Your task to perform on an android device: Go to Reddit.com Image 0: 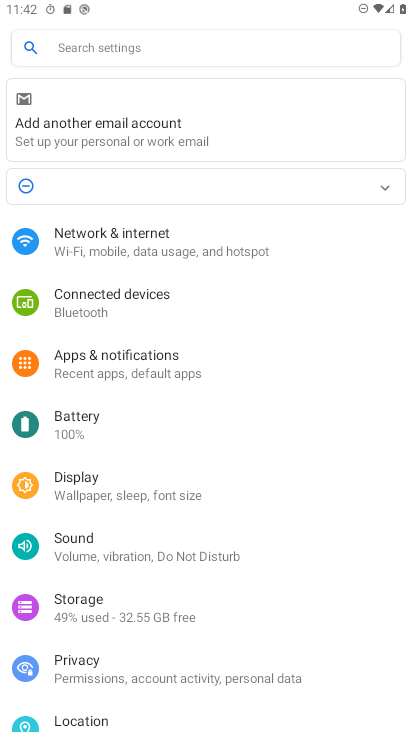
Step 0: press home button
Your task to perform on an android device: Go to Reddit.com Image 1: 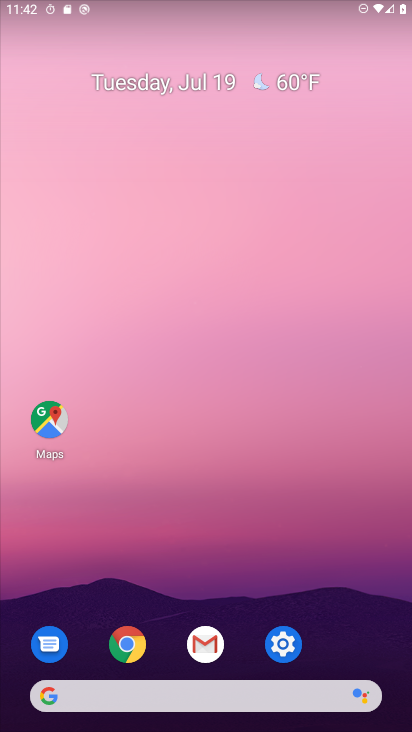
Step 1: click (128, 631)
Your task to perform on an android device: Go to Reddit.com Image 2: 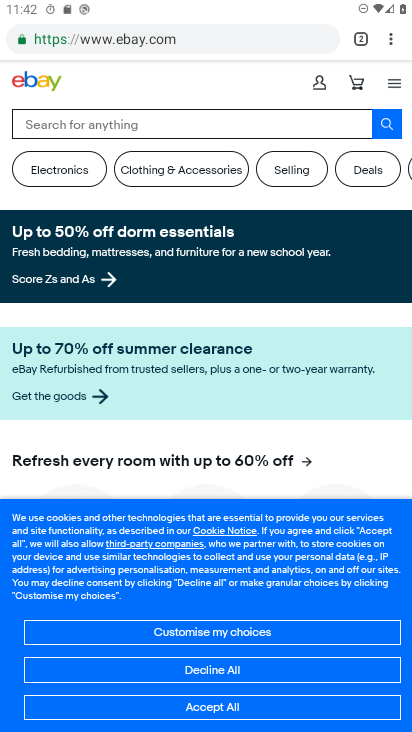
Step 2: click (191, 45)
Your task to perform on an android device: Go to Reddit.com Image 3: 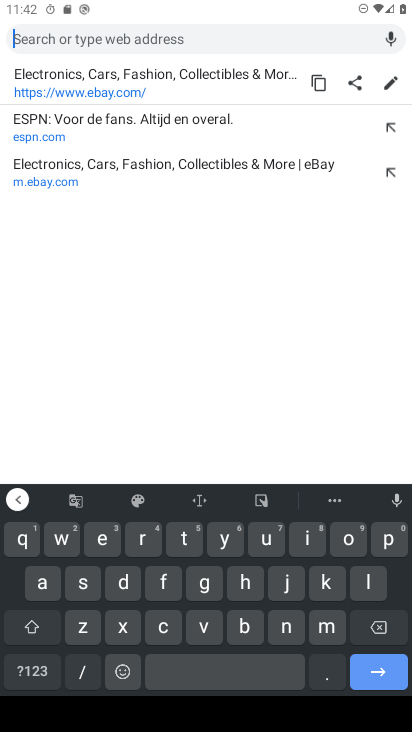
Step 3: click (136, 539)
Your task to perform on an android device: Go to Reddit.com Image 4: 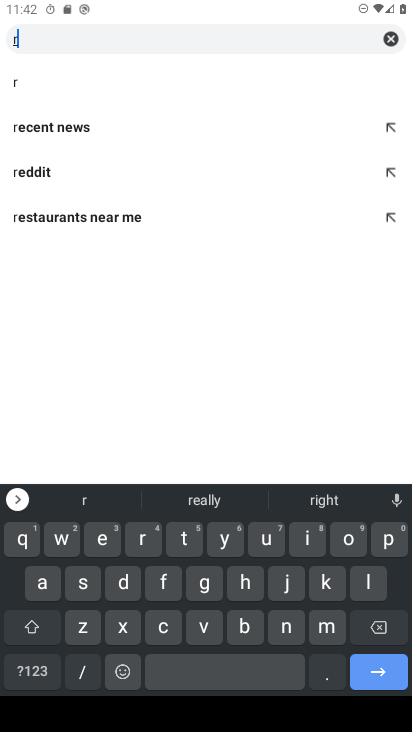
Step 4: click (100, 541)
Your task to perform on an android device: Go to Reddit.com Image 5: 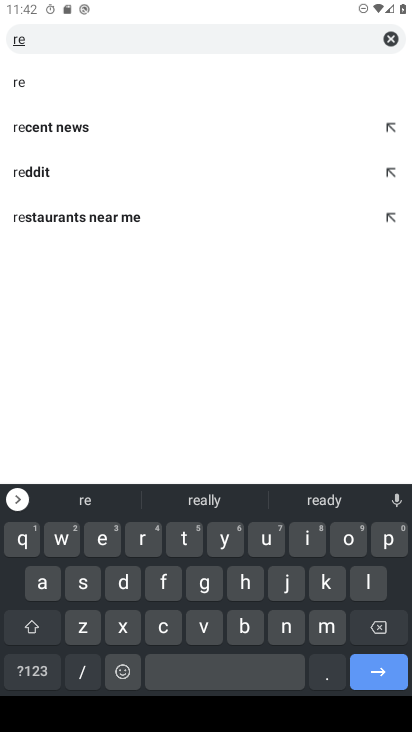
Step 5: click (53, 171)
Your task to perform on an android device: Go to Reddit.com Image 6: 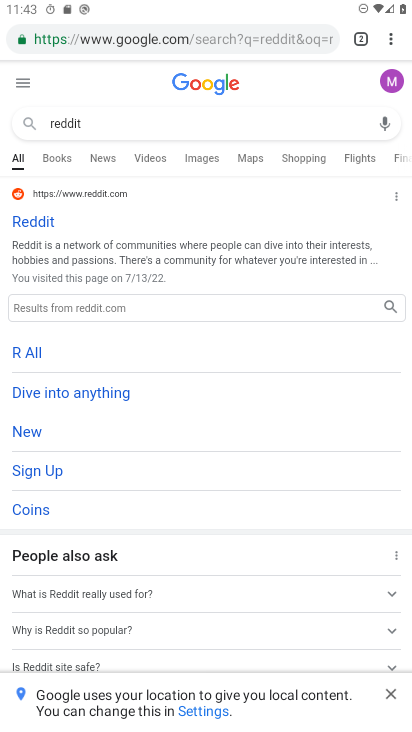
Step 6: click (32, 221)
Your task to perform on an android device: Go to Reddit.com Image 7: 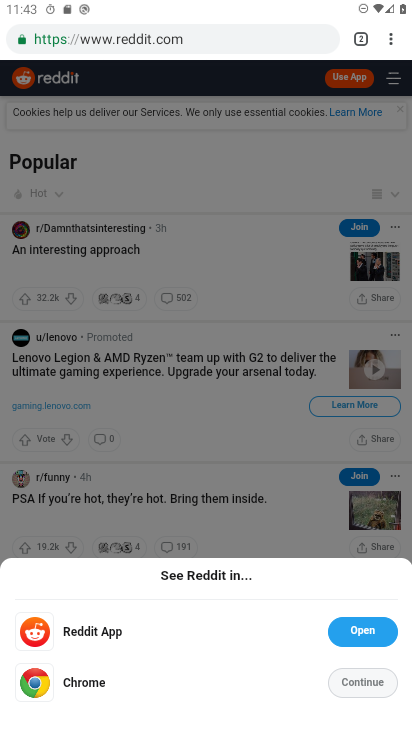
Step 7: click (358, 688)
Your task to perform on an android device: Go to Reddit.com Image 8: 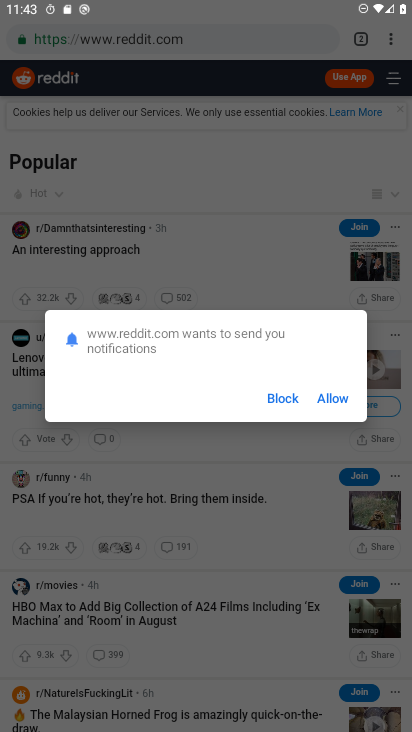
Step 8: click (318, 406)
Your task to perform on an android device: Go to Reddit.com Image 9: 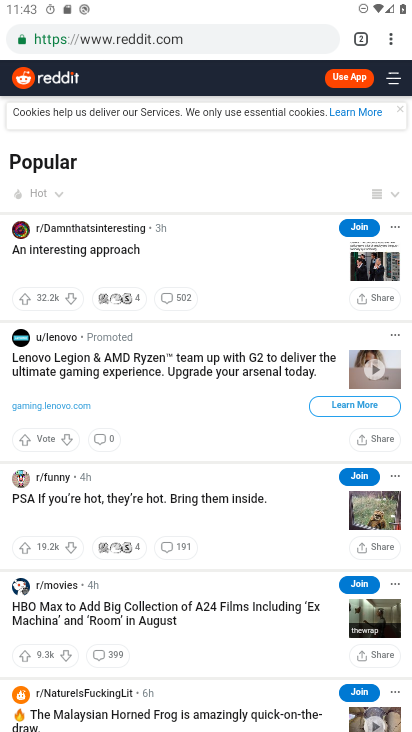
Step 9: task complete